Your task to perform on an android device: Open Google Maps and go to "Timeline" Image 0: 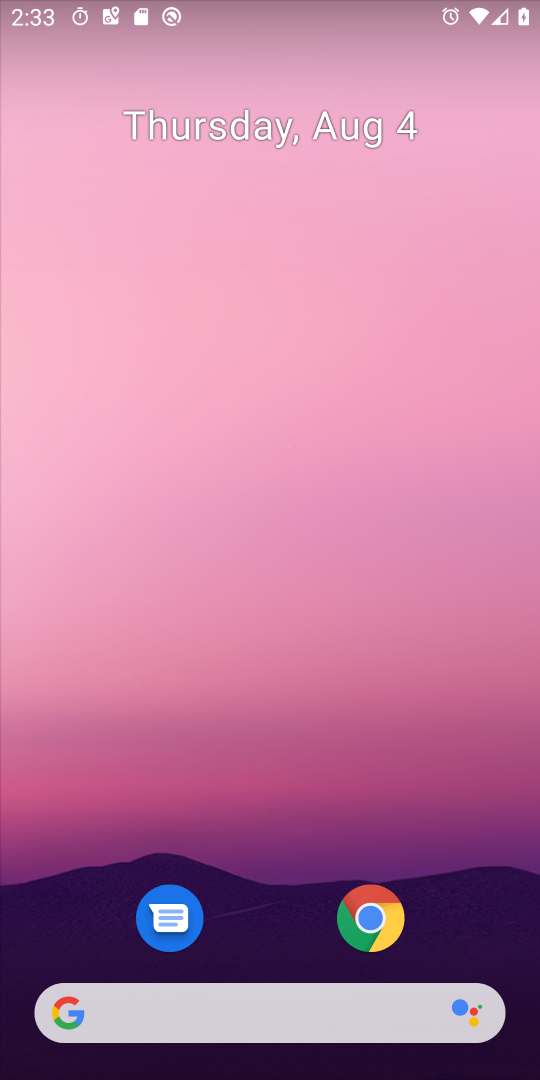
Step 0: drag from (246, 937) to (246, 333)
Your task to perform on an android device: Open Google Maps and go to "Timeline" Image 1: 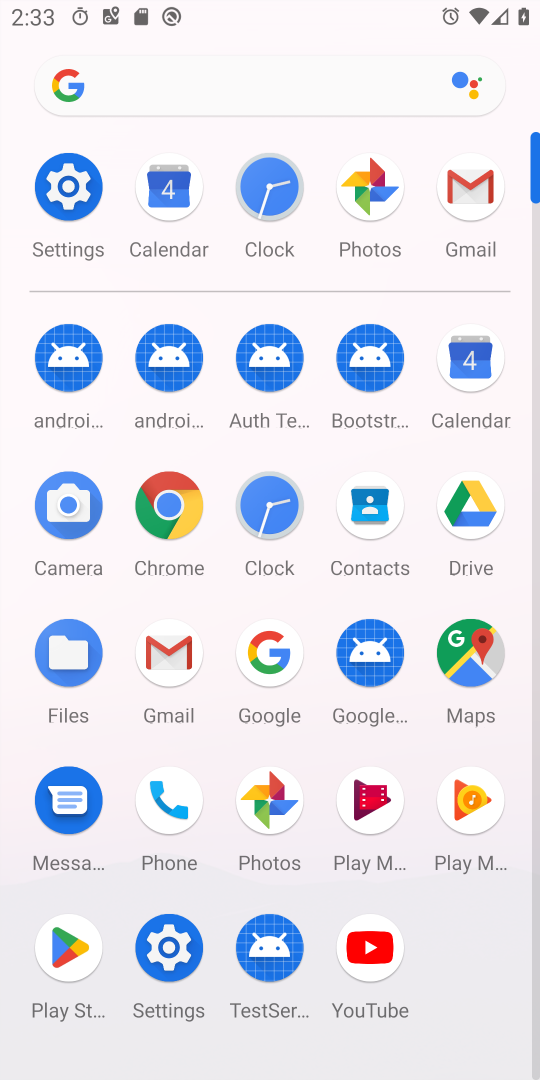
Step 1: click (471, 674)
Your task to perform on an android device: Open Google Maps and go to "Timeline" Image 2: 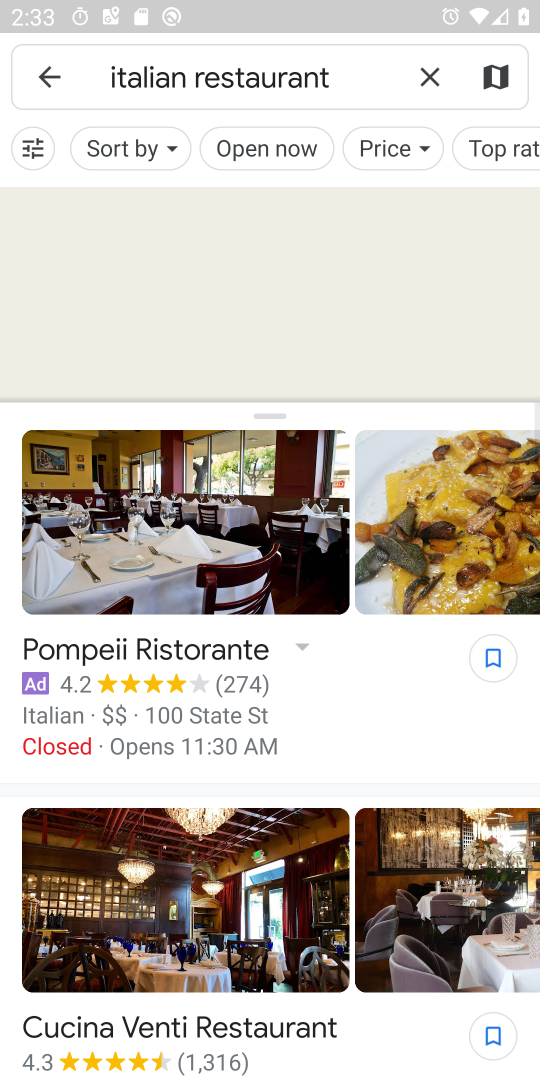
Step 2: click (50, 92)
Your task to perform on an android device: Open Google Maps and go to "Timeline" Image 3: 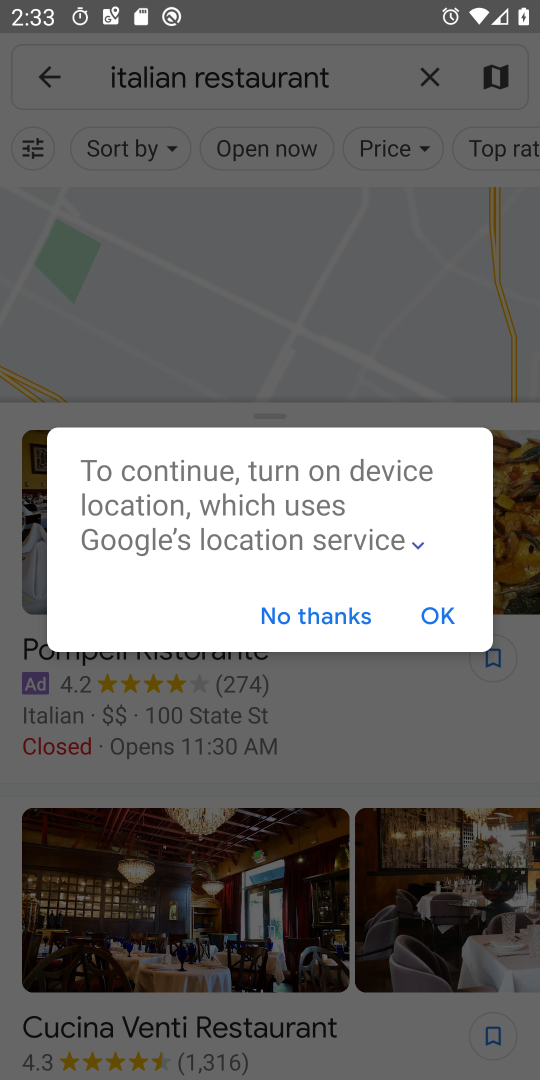
Step 3: click (421, 600)
Your task to perform on an android device: Open Google Maps and go to "Timeline" Image 4: 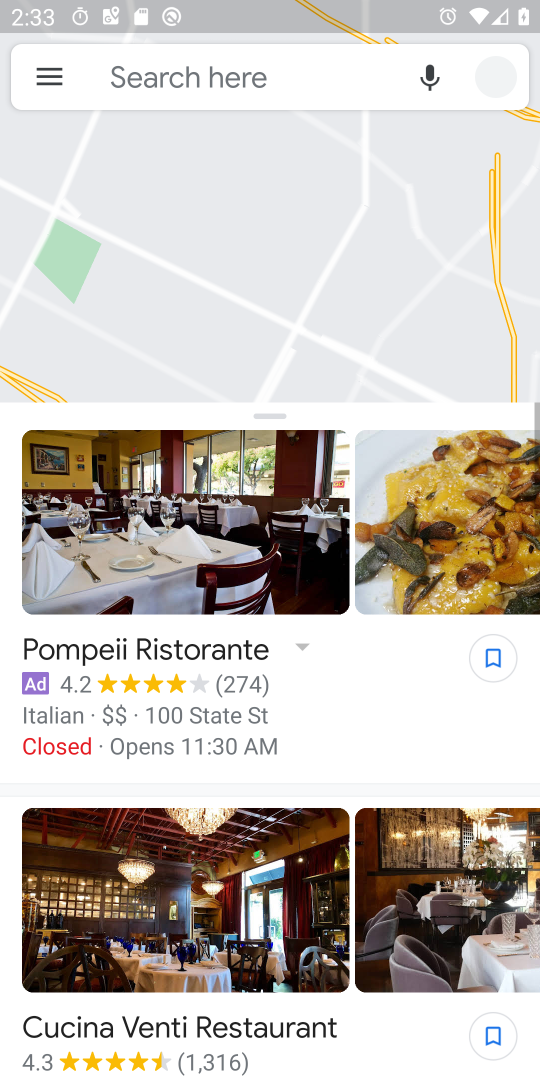
Step 4: click (28, 78)
Your task to perform on an android device: Open Google Maps and go to "Timeline" Image 5: 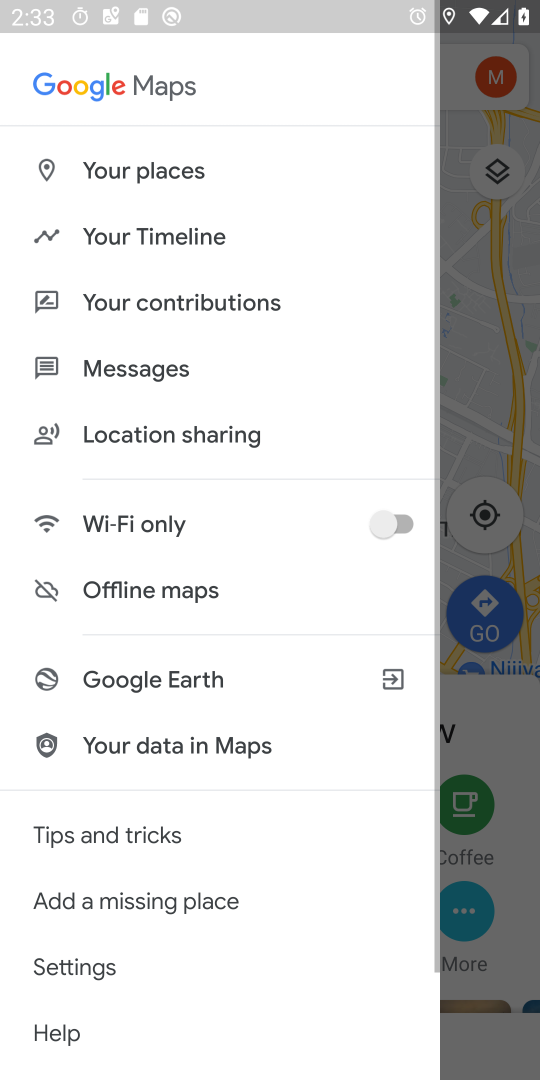
Step 5: click (169, 231)
Your task to perform on an android device: Open Google Maps and go to "Timeline" Image 6: 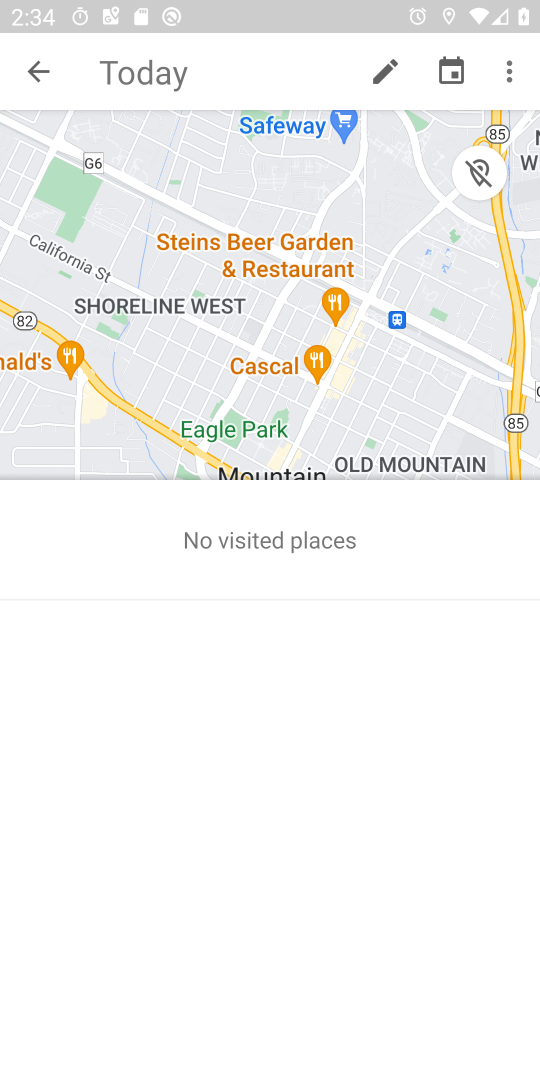
Step 6: task complete